Your task to perform on an android device: Do I have any events today? Image 0: 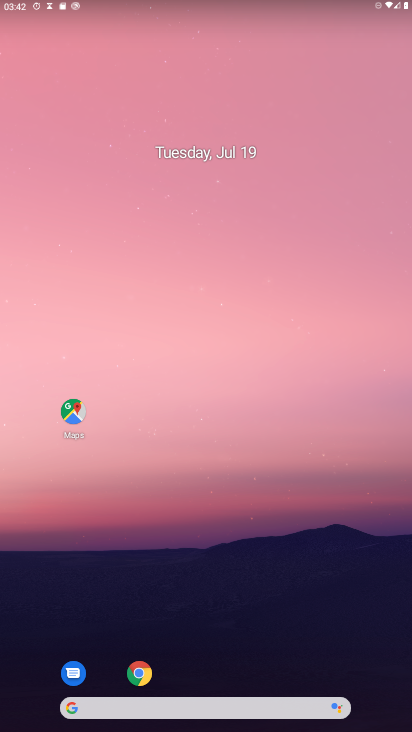
Step 0: drag from (220, 658) to (184, 85)
Your task to perform on an android device: Do I have any events today? Image 1: 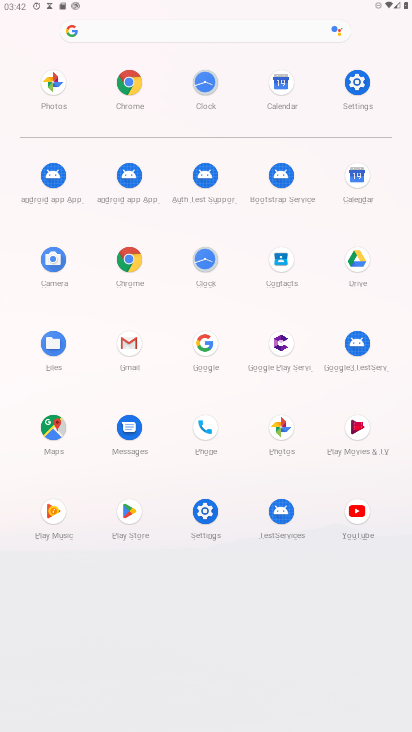
Step 1: click (364, 188)
Your task to perform on an android device: Do I have any events today? Image 2: 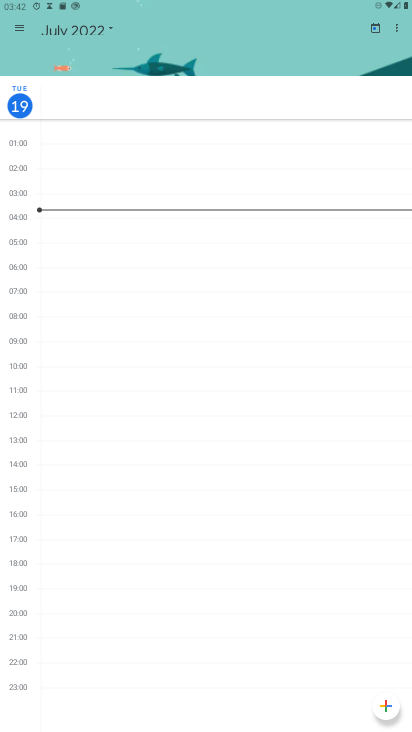
Step 2: click (26, 31)
Your task to perform on an android device: Do I have any events today? Image 3: 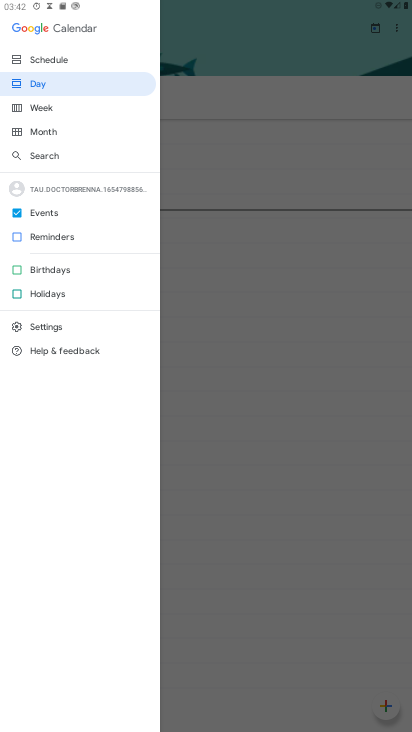
Step 3: task complete